Your task to perform on an android device: Show me recent news Image 0: 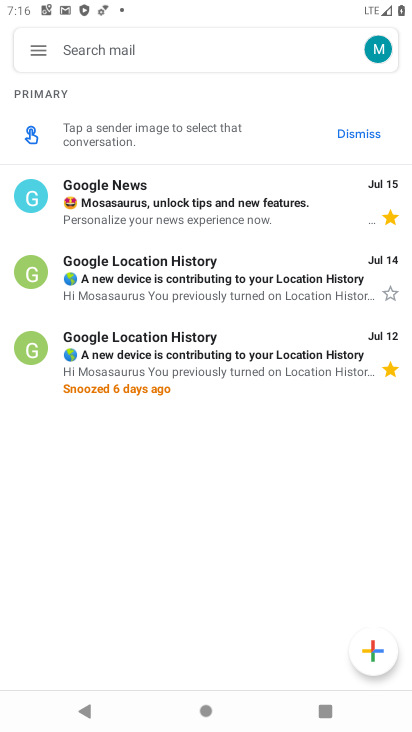
Step 0: press home button
Your task to perform on an android device: Show me recent news Image 1: 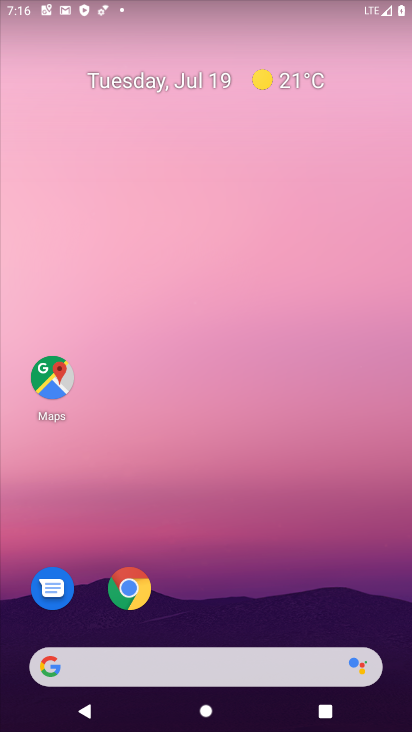
Step 1: drag from (295, 567) to (326, 191)
Your task to perform on an android device: Show me recent news Image 2: 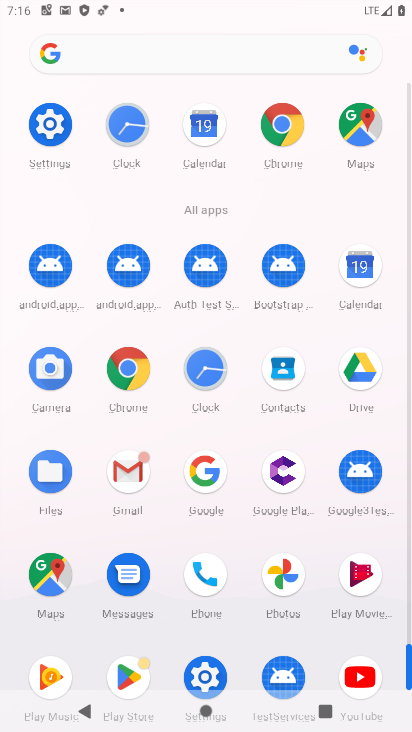
Step 2: click (213, 479)
Your task to perform on an android device: Show me recent news Image 3: 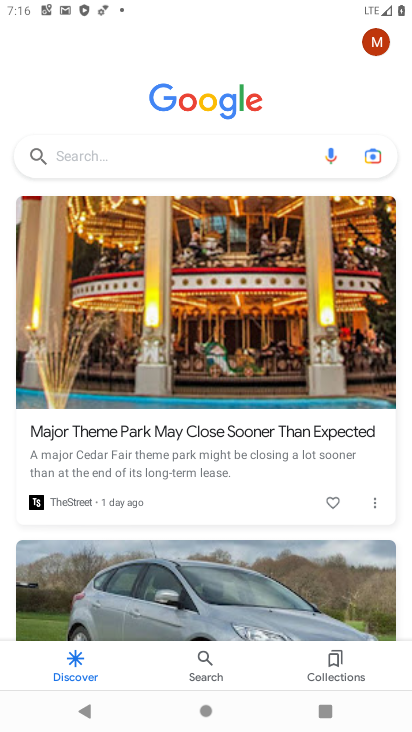
Step 3: task complete